Your task to perform on an android device: turn off improve location accuracy Image 0: 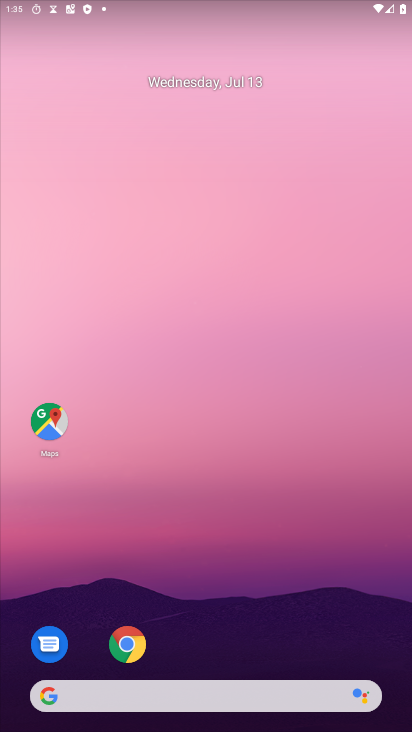
Step 0: press home button
Your task to perform on an android device: turn off improve location accuracy Image 1: 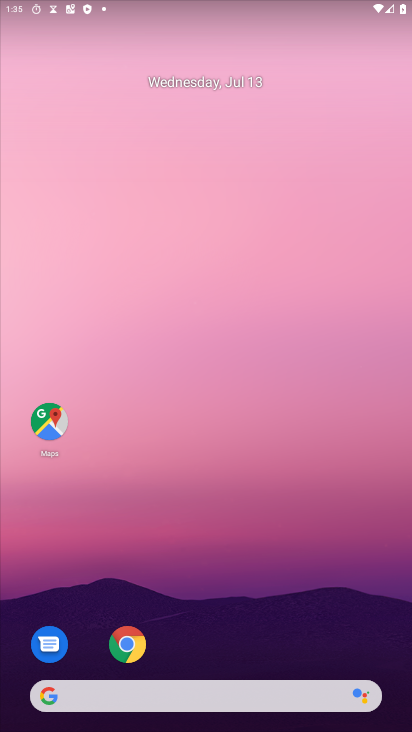
Step 1: drag from (242, 594) to (264, 141)
Your task to perform on an android device: turn off improve location accuracy Image 2: 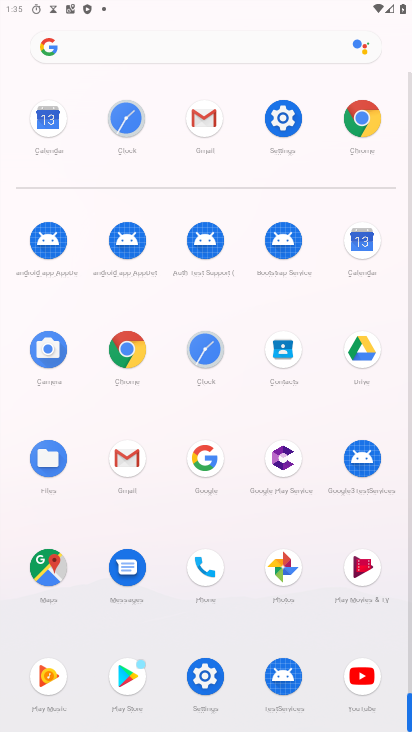
Step 2: click (291, 134)
Your task to perform on an android device: turn off improve location accuracy Image 3: 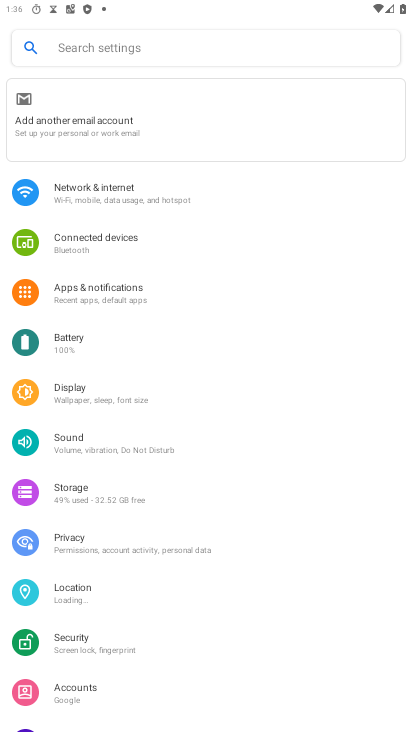
Step 3: click (73, 591)
Your task to perform on an android device: turn off improve location accuracy Image 4: 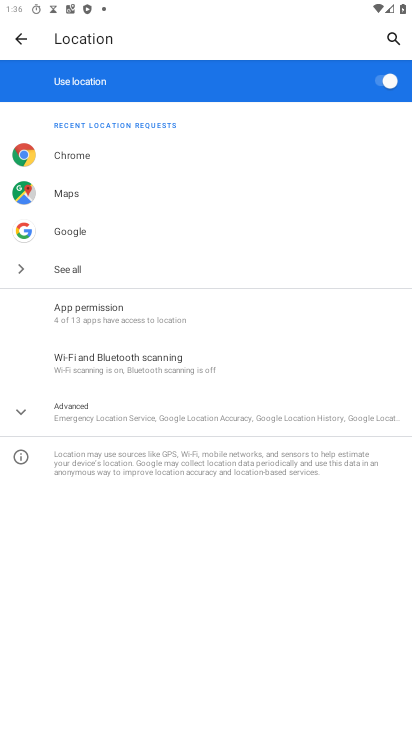
Step 4: click (18, 410)
Your task to perform on an android device: turn off improve location accuracy Image 5: 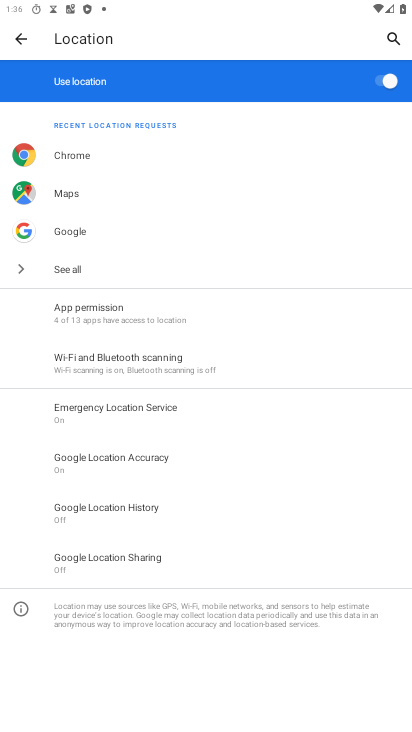
Step 5: click (98, 455)
Your task to perform on an android device: turn off improve location accuracy Image 6: 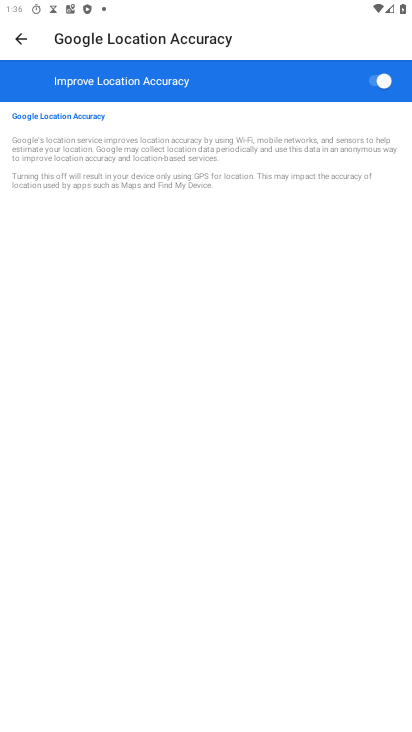
Step 6: click (375, 78)
Your task to perform on an android device: turn off improve location accuracy Image 7: 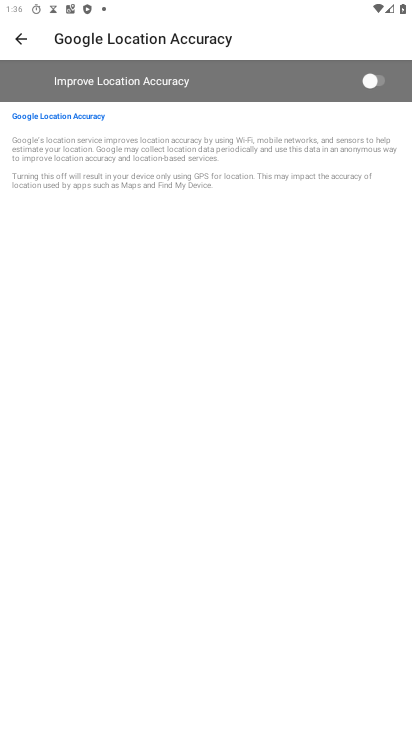
Step 7: task complete